Your task to perform on an android device: turn off sleep mode Image 0: 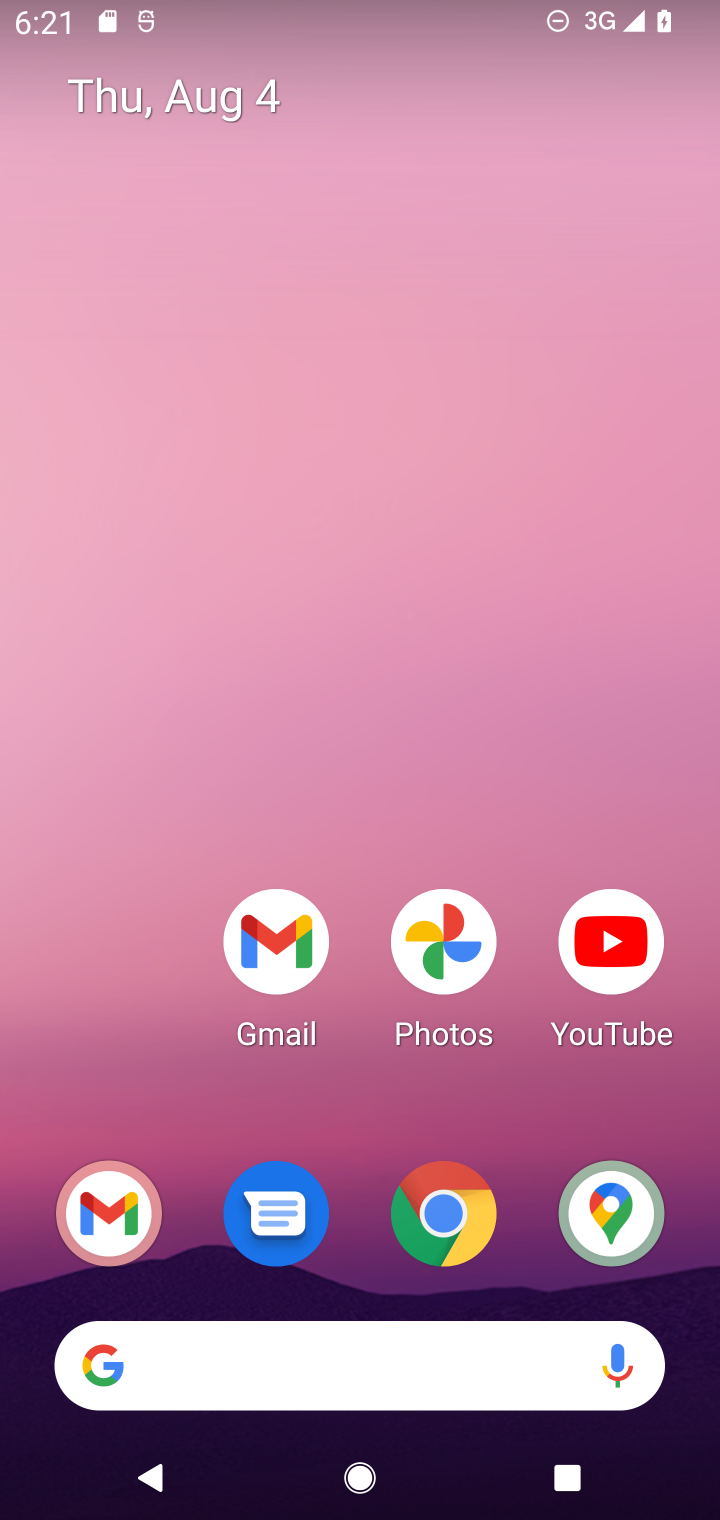
Step 0: press home button
Your task to perform on an android device: turn off sleep mode Image 1: 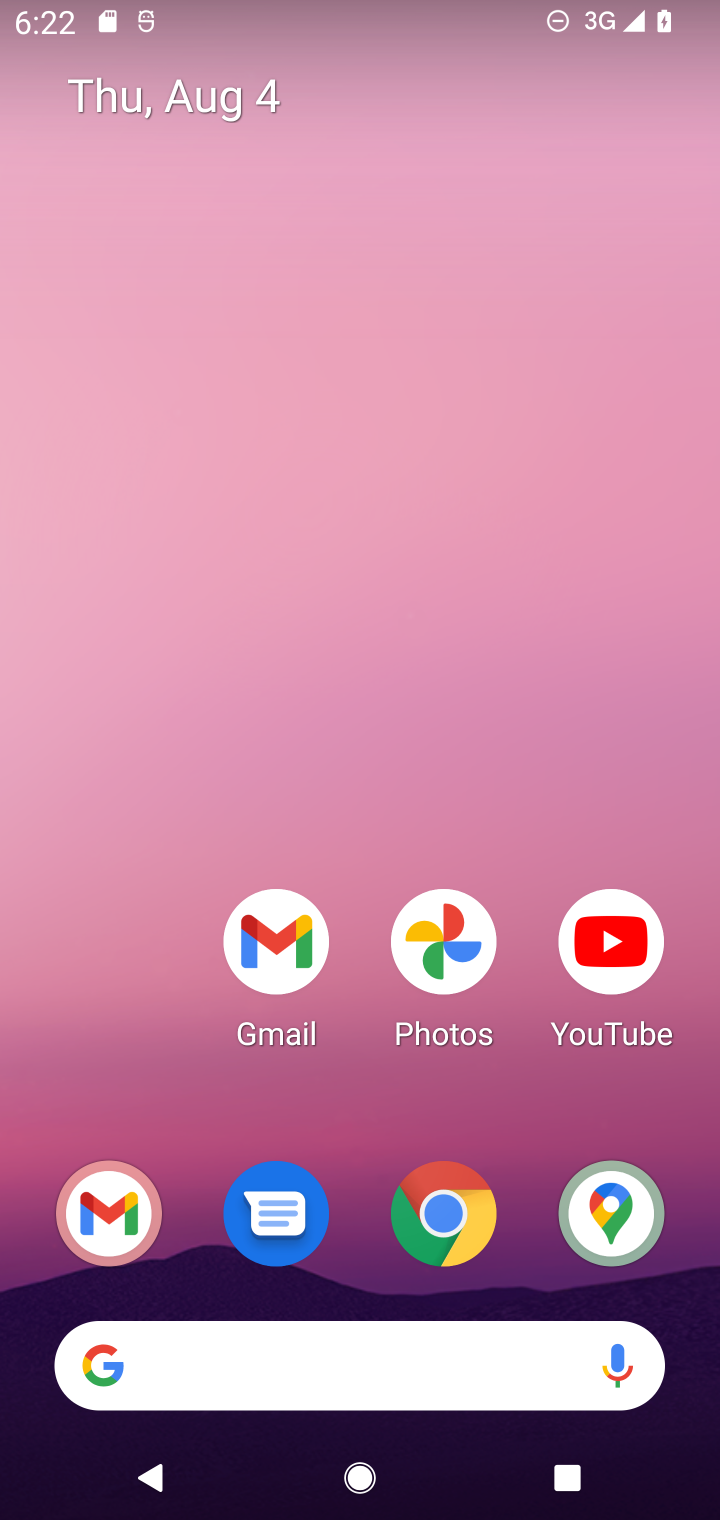
Step 1: drag from (171, 1095) to (129, 449)
Your task to perform on an android device: turn off sleep mode Image 2: 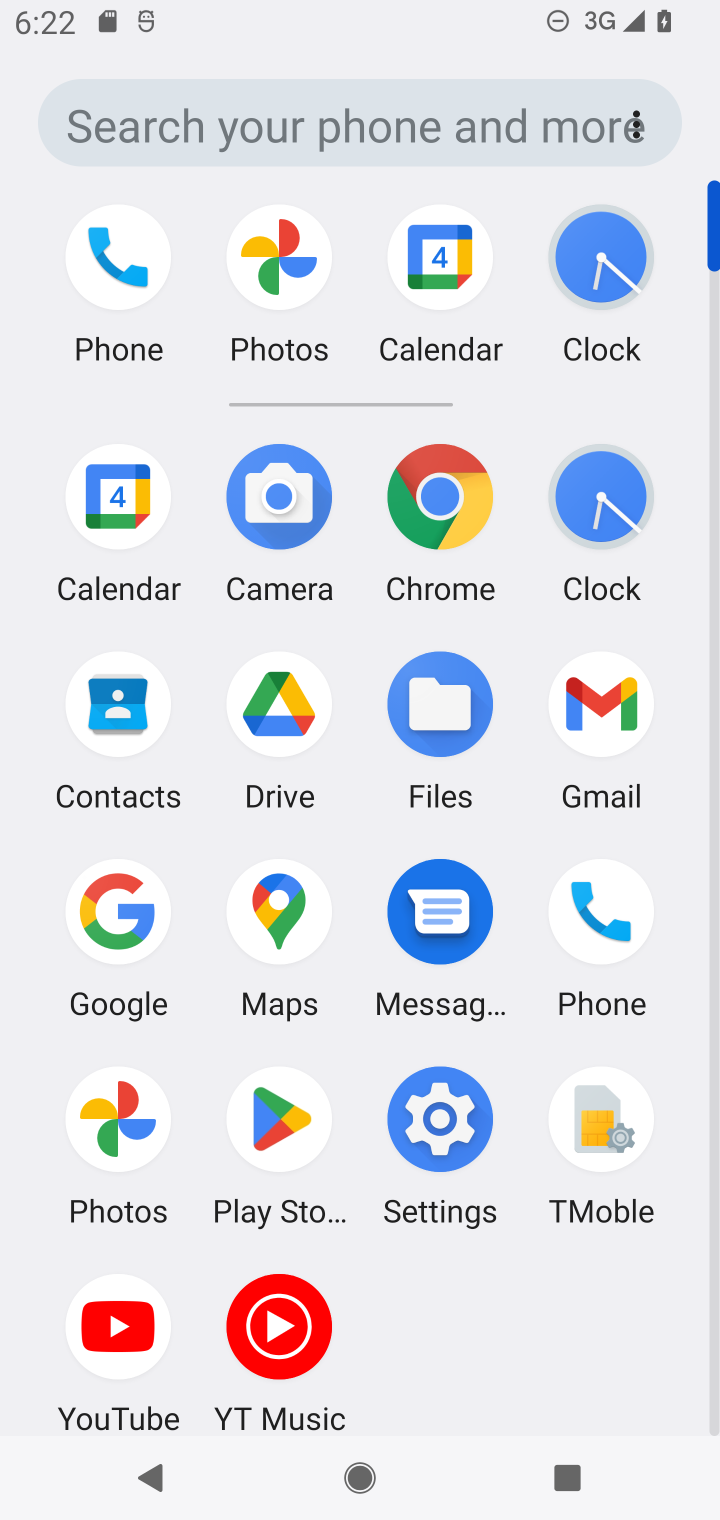
Step 2: click (454, 1117)
Your task to perform on an android device: turn off sleep mode Image 3: 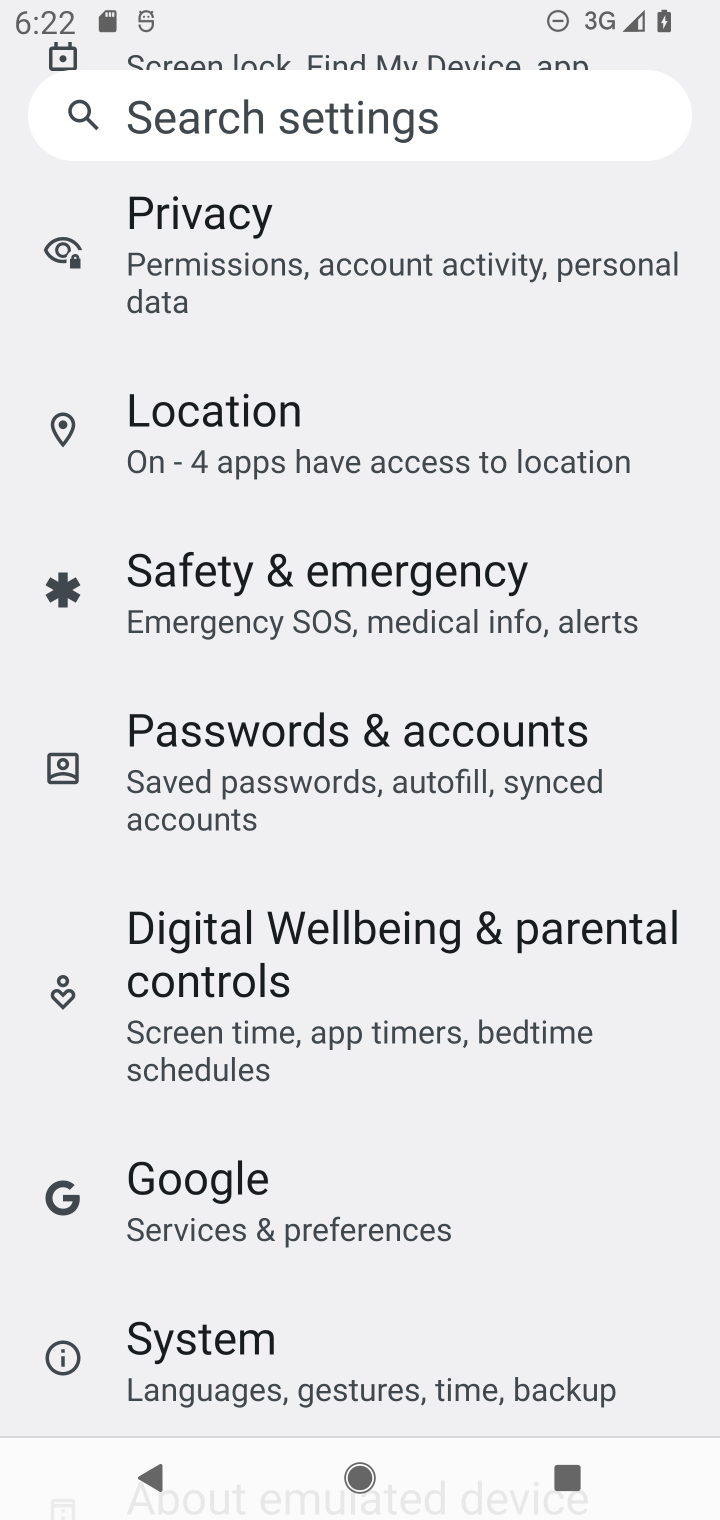
Step 3: drag from (677, 799) to (657, 1058)
Your task to perform on an android device: turn off sleep mode Image 4: 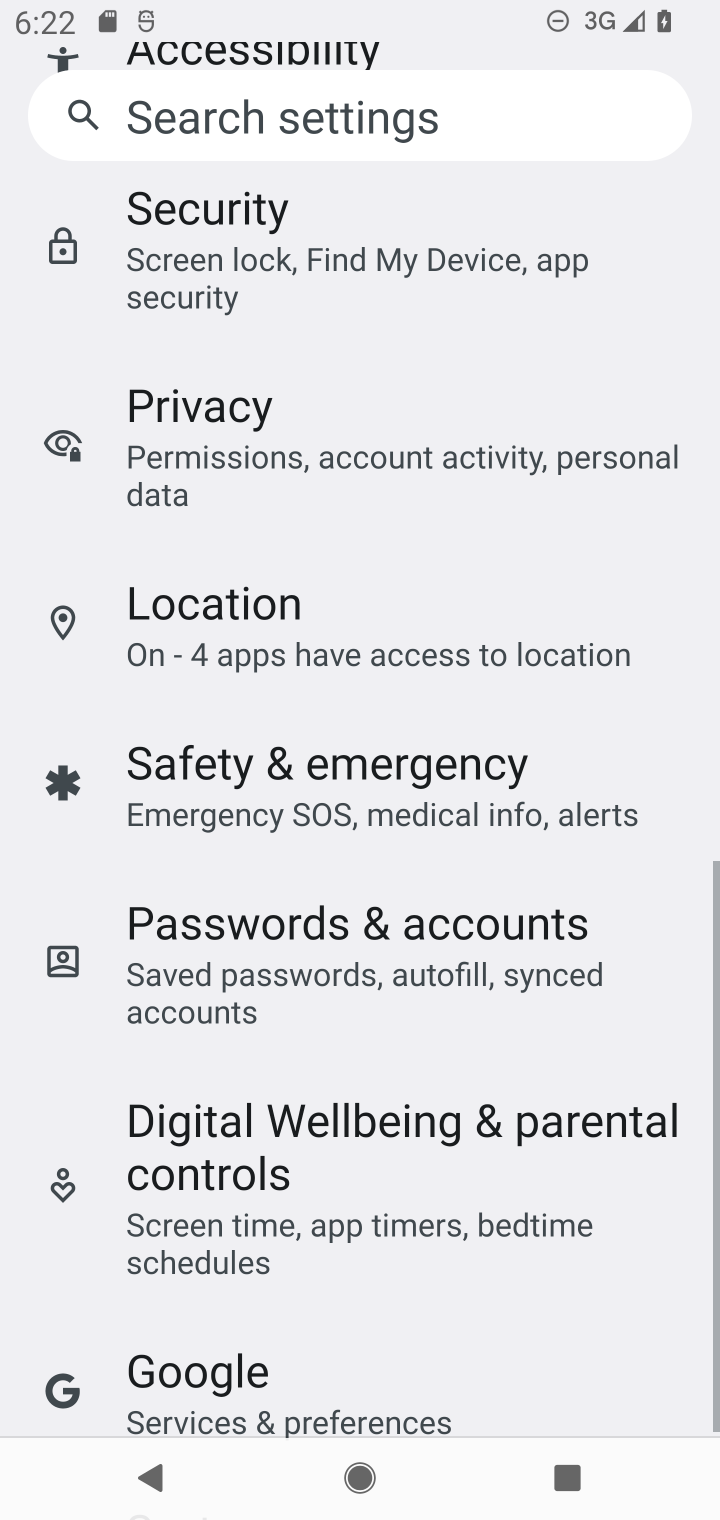
Step 4: drag from (669, 793) to (665, 999)
Your task to perform on an android device: turn off sleep mode Image 5: 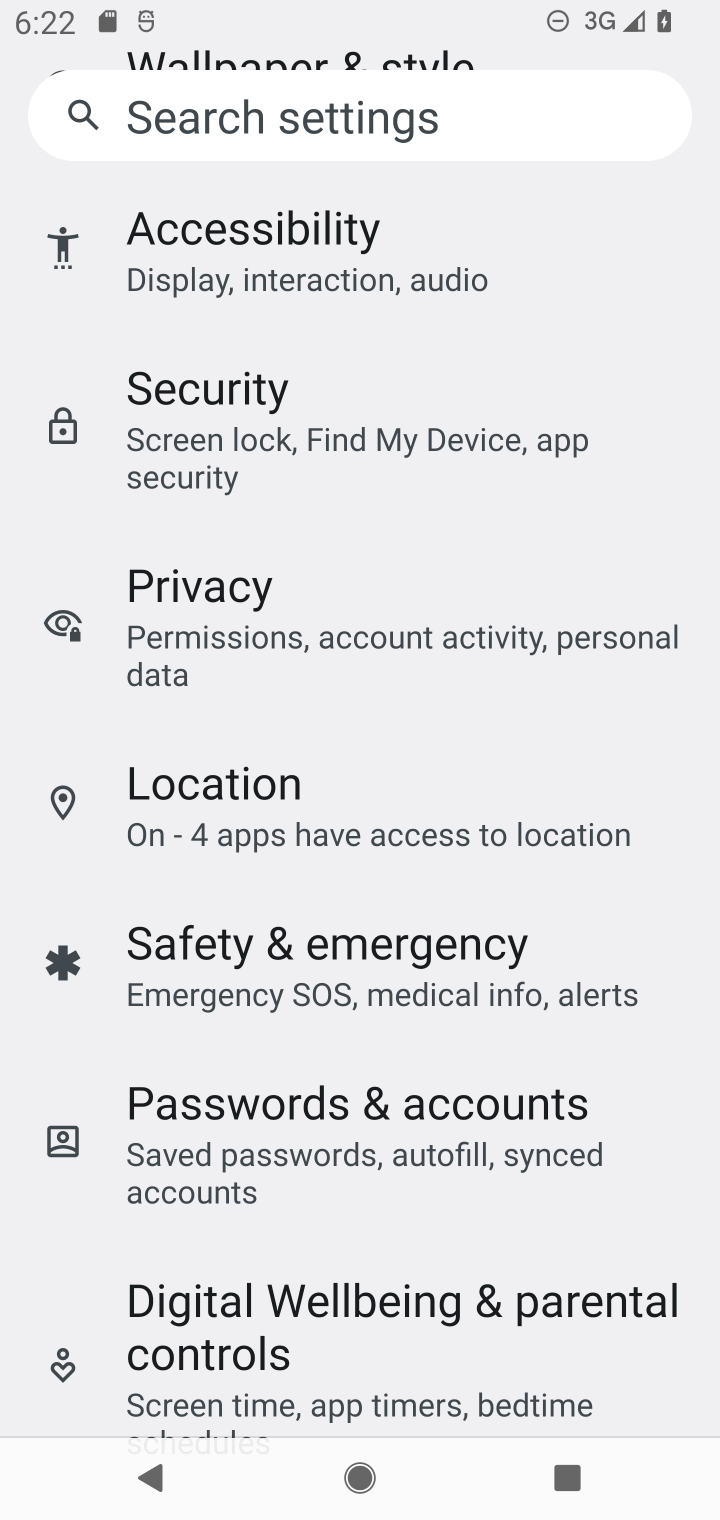
Step 5: drag from (661, 740) to (671, 987)
Your task to perform on an android device: turn off sleep mode Image 6: 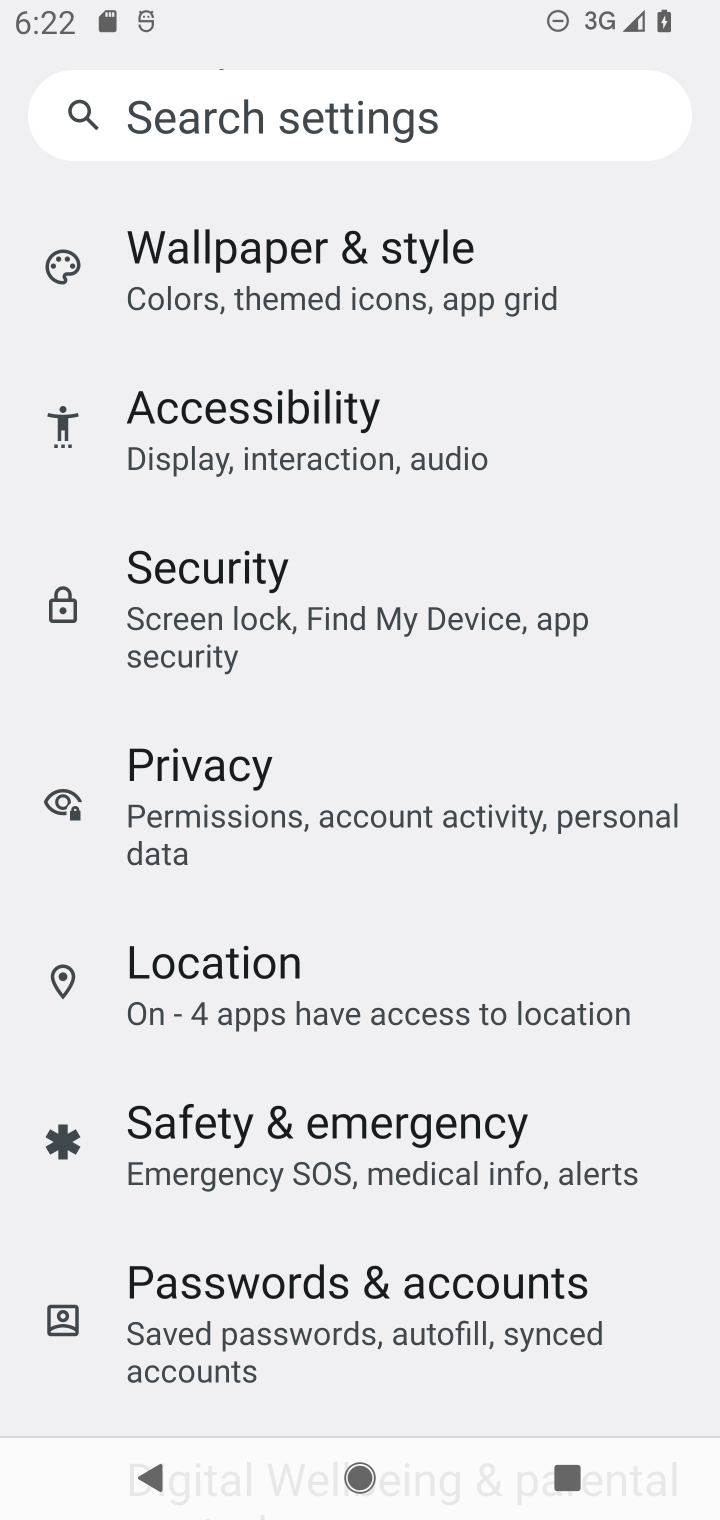
Step 6: drag from (640, 629) to (645, 854)
Your task to perform on an android device: turn off sleep mode Image 7: 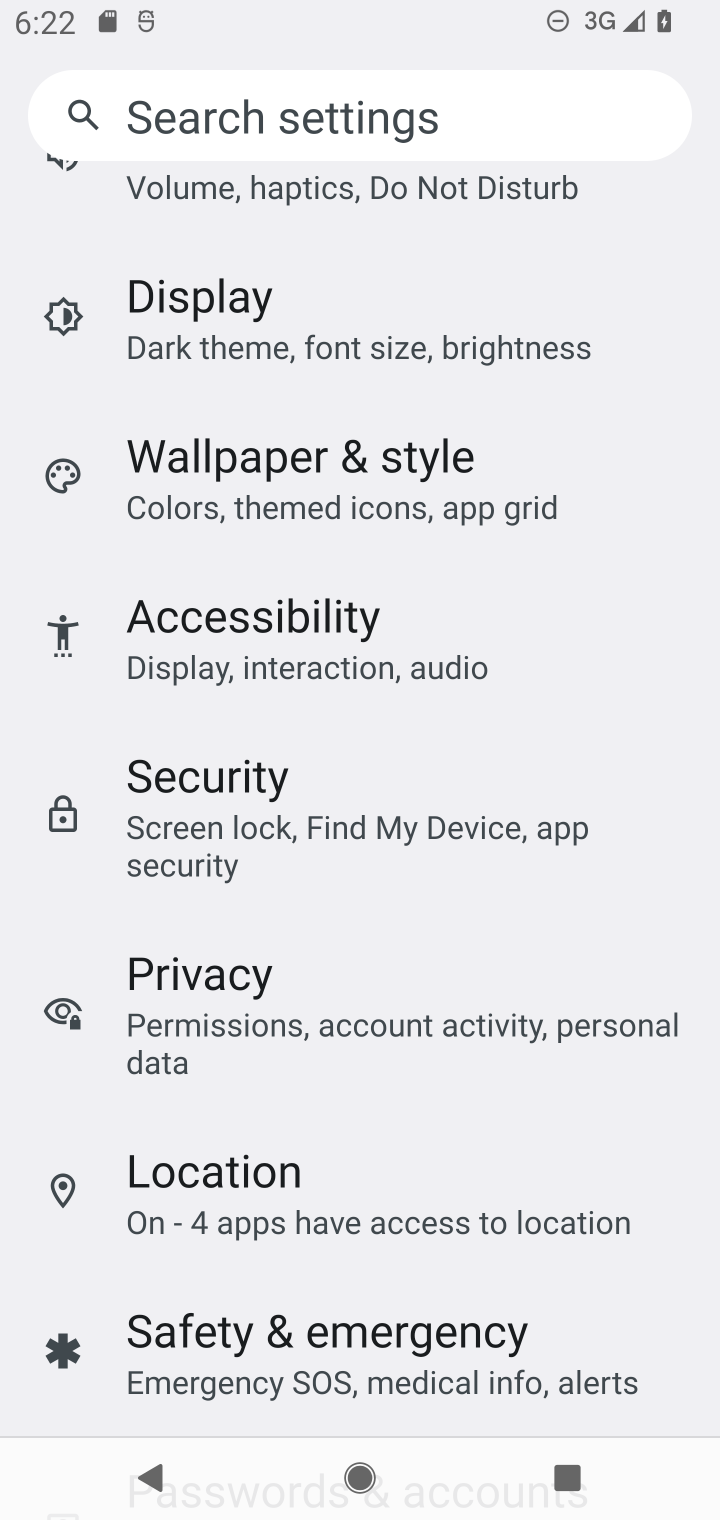
Step 7: drag from (654, 572) to (654, 828)
Your task to perform on an android device: turn off sleep mode Image 8: 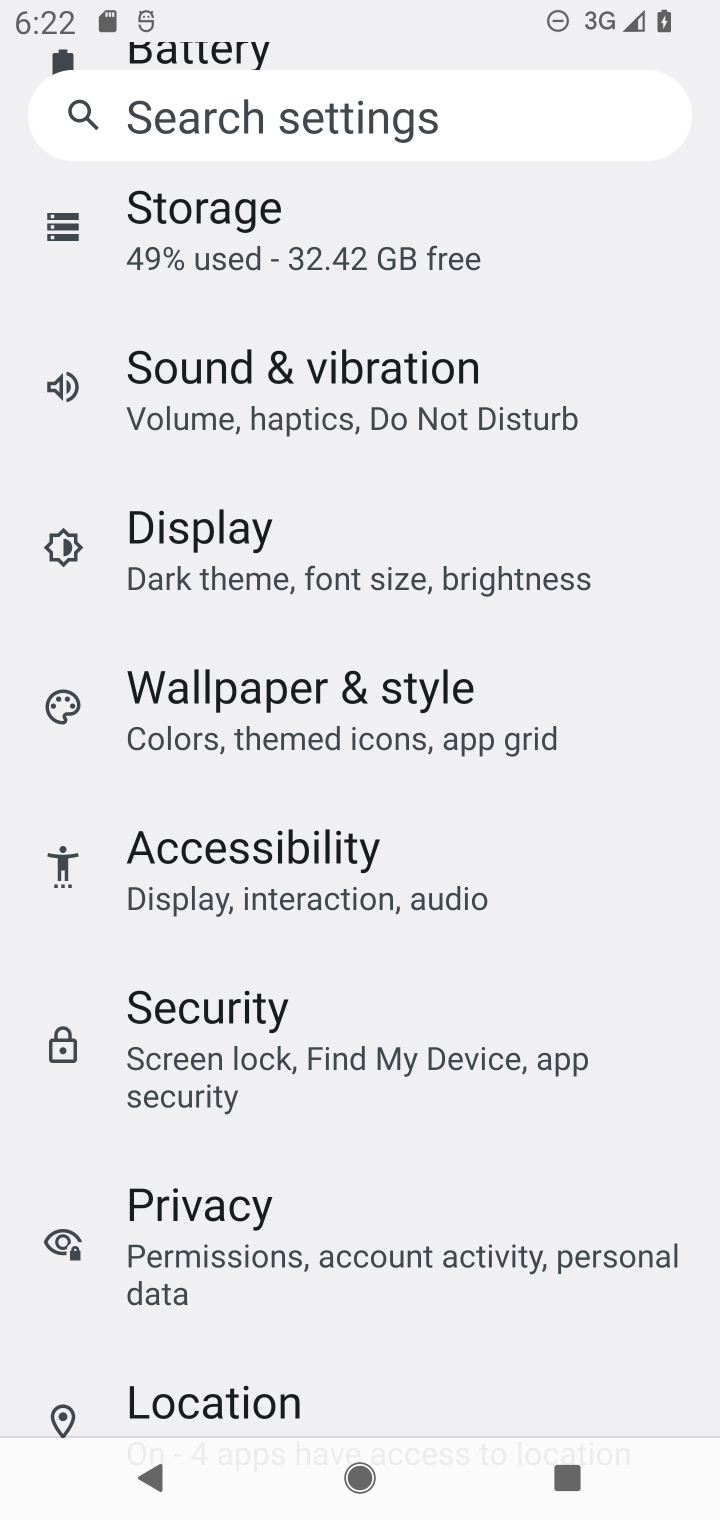
Step 8: drag from (636, 395) to (654, 749)
Your task to perform on an android device: turn off sleep mode Image 9: 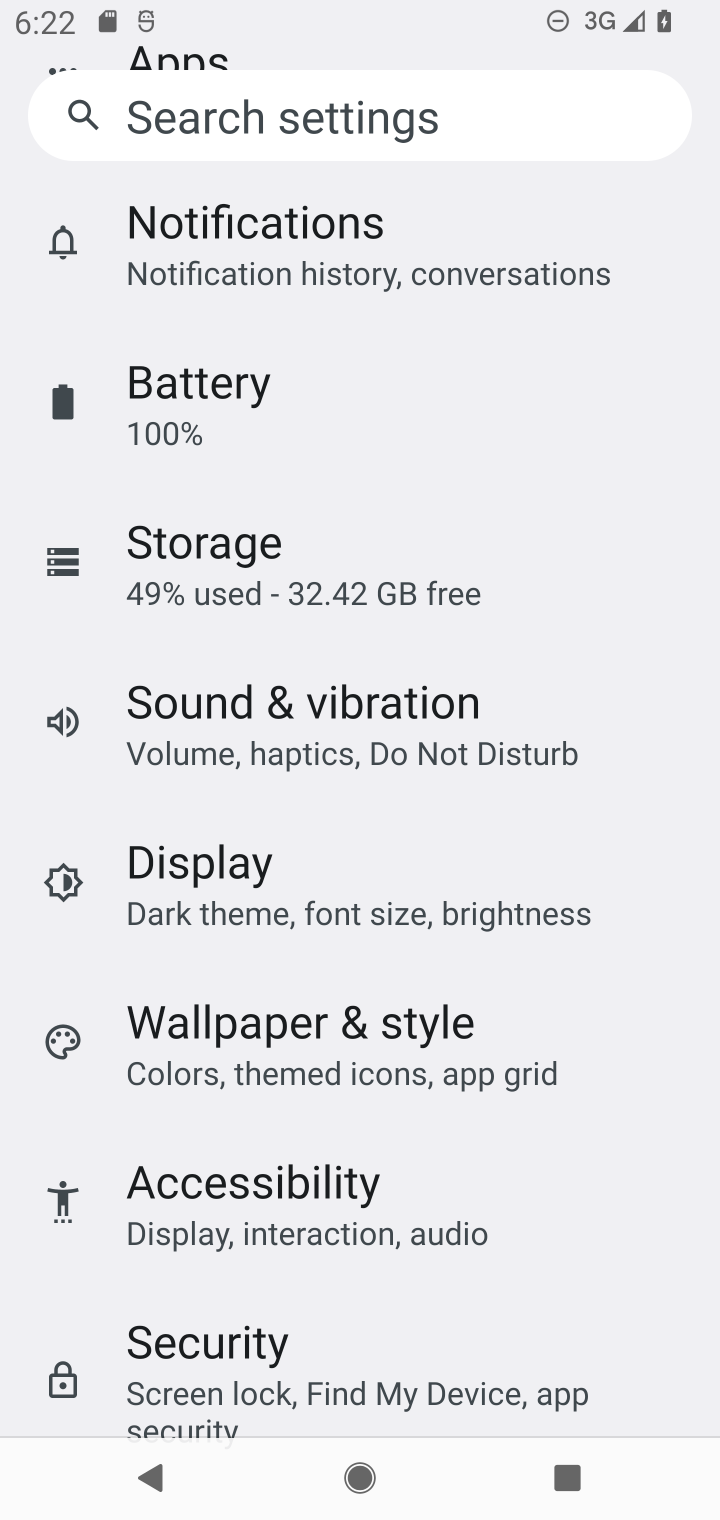
Step 9: click (564, 865)
Your task to perform on an android device: turn off sleep mode Image 10: 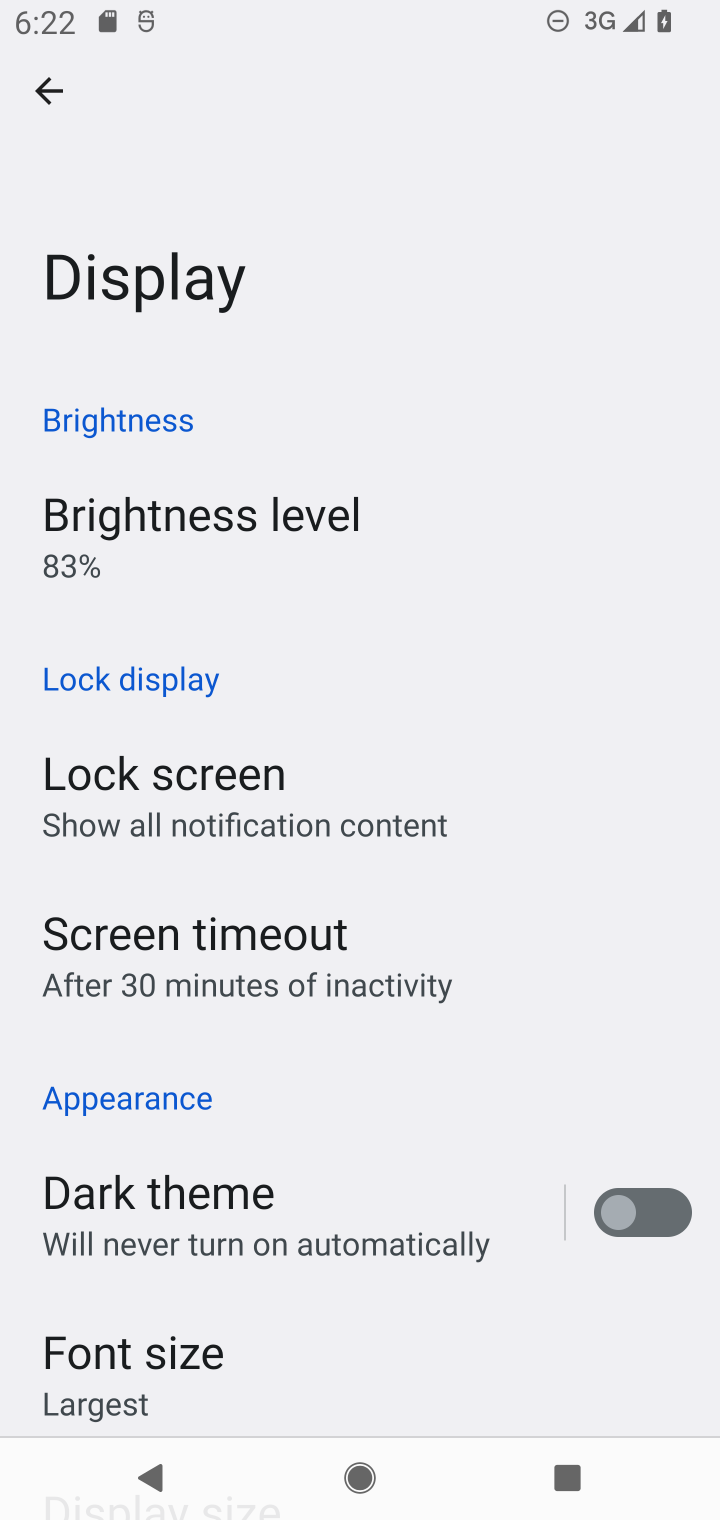
Step 10: task complete